Your task to perform on an android device: Go to Android settings Image 0: 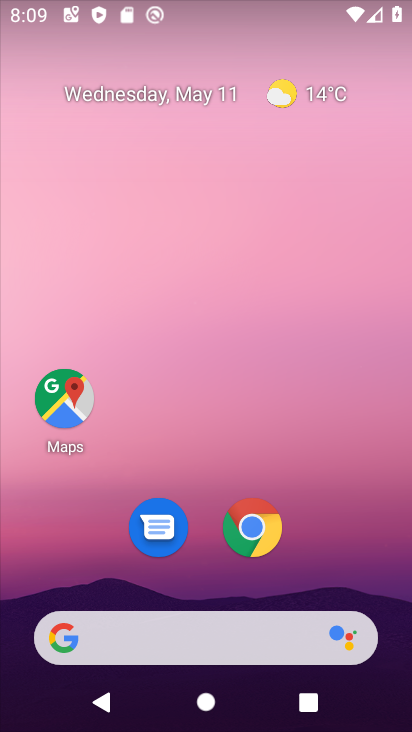
Step 0: drag from (336, 357) to (329, 4)
Your task to perform on an android device: Go to Android settings Image 1: 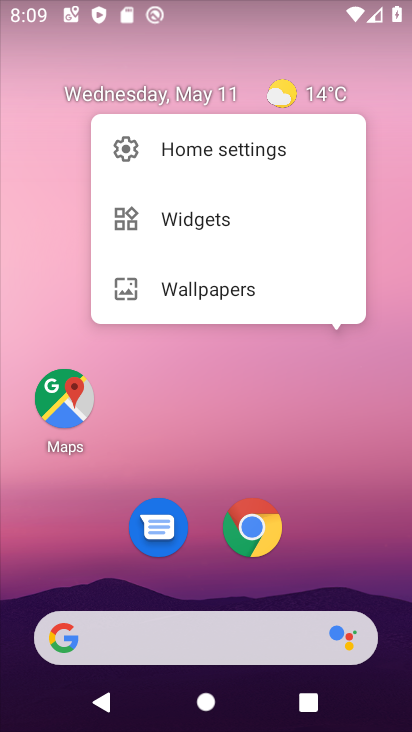
Step 1: drag from (382, 466) to (374, 3)
Your task to perform on an android device: Go to Android settings Image 2: 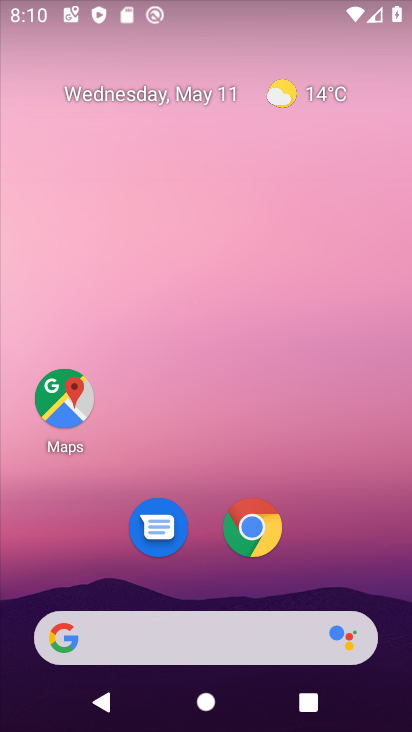
Step 2: drag from (344, 398) to (323, 10)
Your task to perform on an android device: Go to Android settings Image 3: 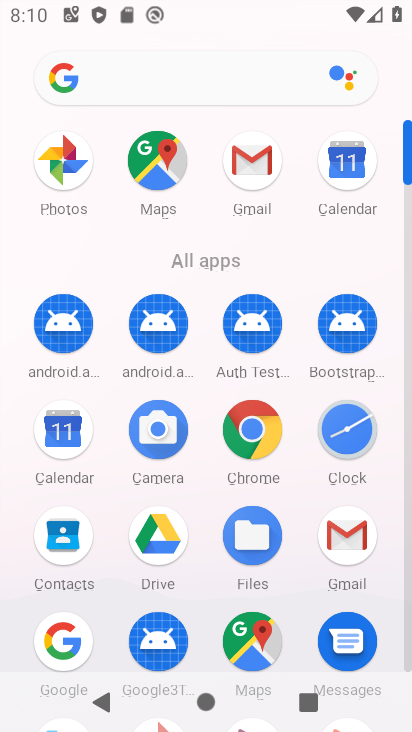
Step 3: drag from (407, 534) to (408, 484)
Your task to perform on an android device: Go to Android settings Image 4: 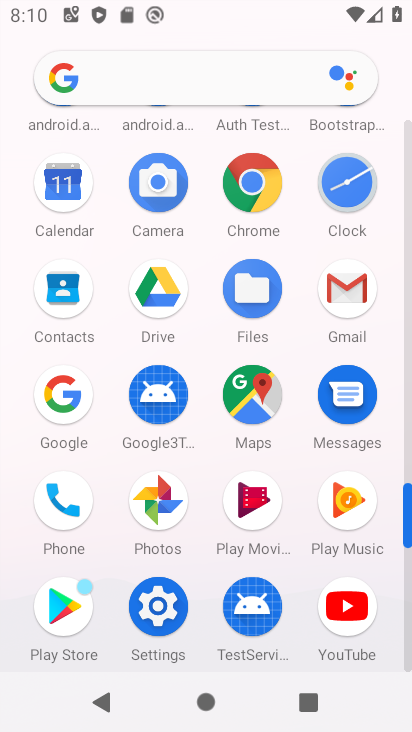
Step 4: click (164, 592)
Your task to perform on an android device: Go to Android settings Image 5: 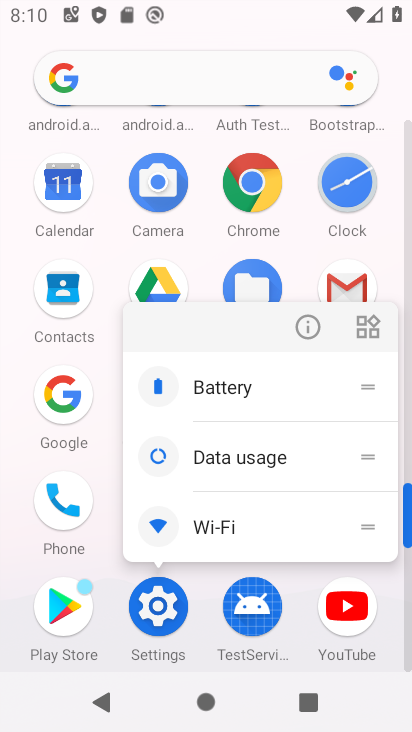
Step 5: click (172, 619)
Your task to perform on an android device: Go to Android settings Image 6: 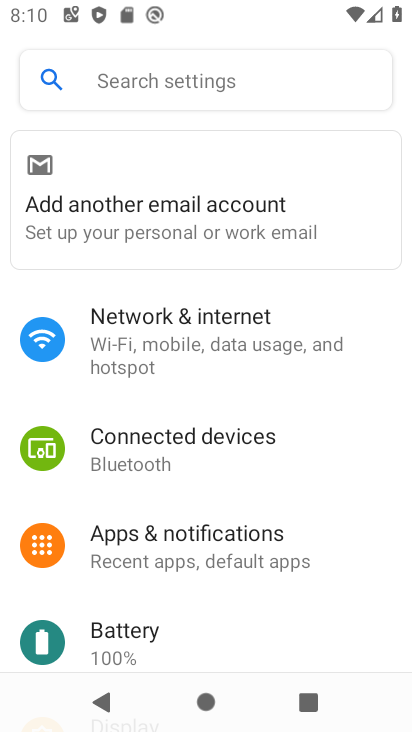
Step 6: task complete